Your task to perform on an android device: Open Google Chrome and open the bookmarks view Image 0: 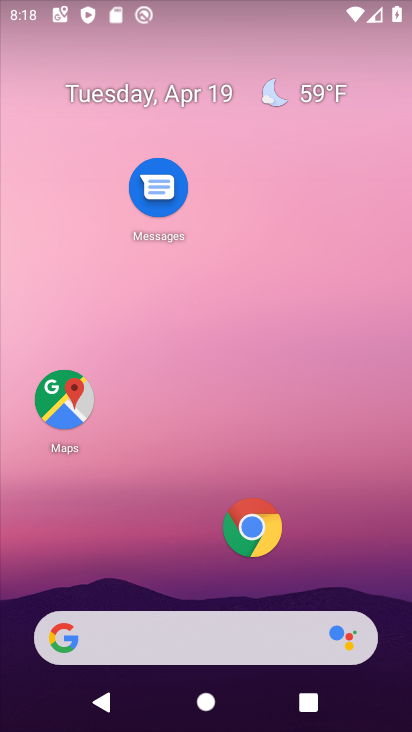
Step 0: click (253, 528)
Your task to perform on an android device: Open Google Chrome and open the bookmarks view Image 1: 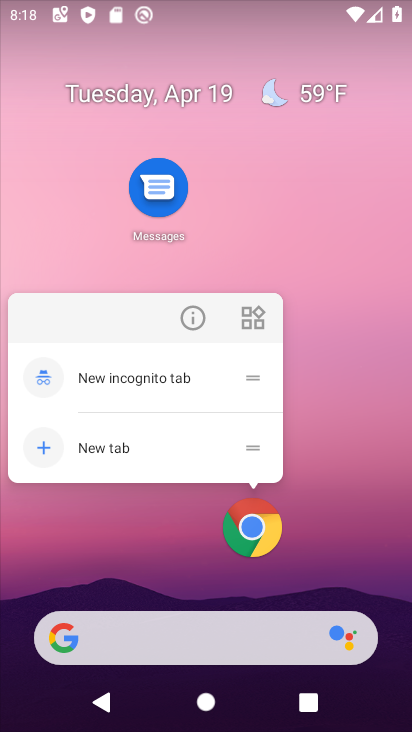
Step 1: click (253, 528)
Your task to perform on an android device: Open Google Chrome and open the bookmarks view Image 2: 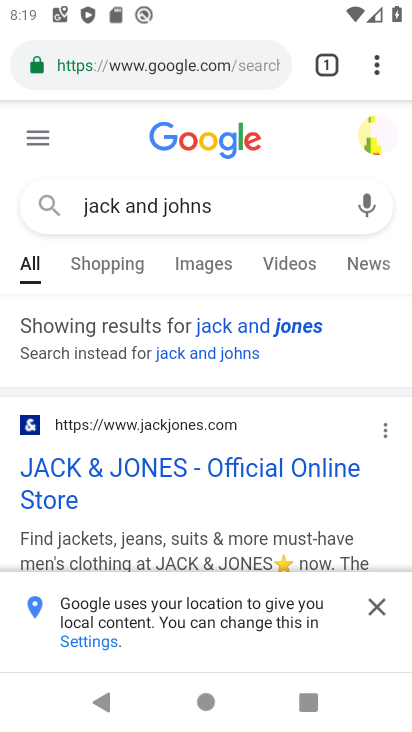
Step 2: click (382, 62)
Your task to perform on an android device: Open Google Chrome and open the bookmarks view Image 3: 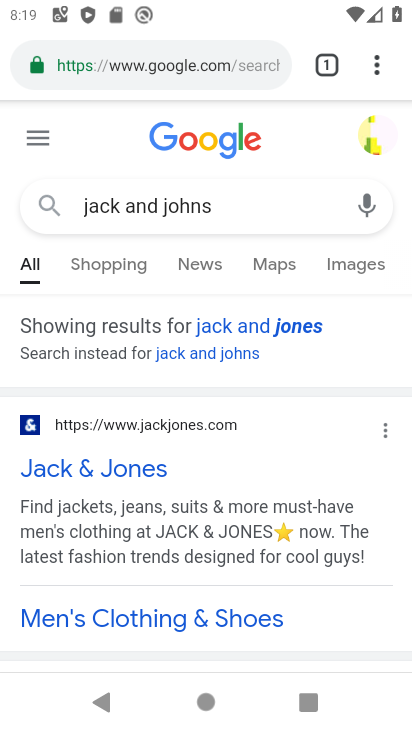
Step 3: drag from (375, 63) to (179, 243)
Your task to perform on an android device: Open Google Chrome and open the bookmarks view Image 4: 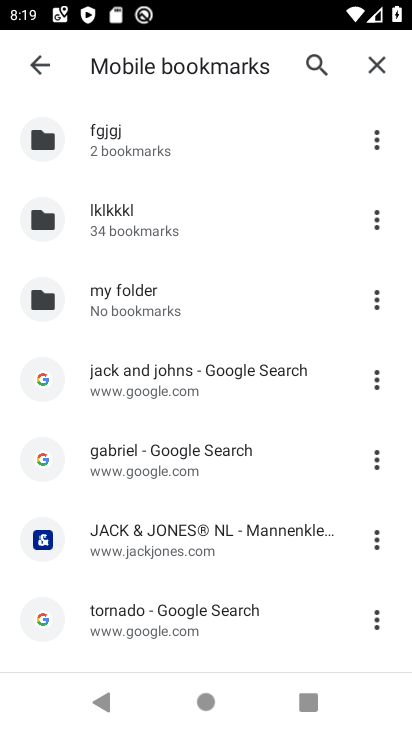
Step 4: click (152, 381)
Your task to perform on an android device: Open Google Chrome and open the bookmarks view Image 5: 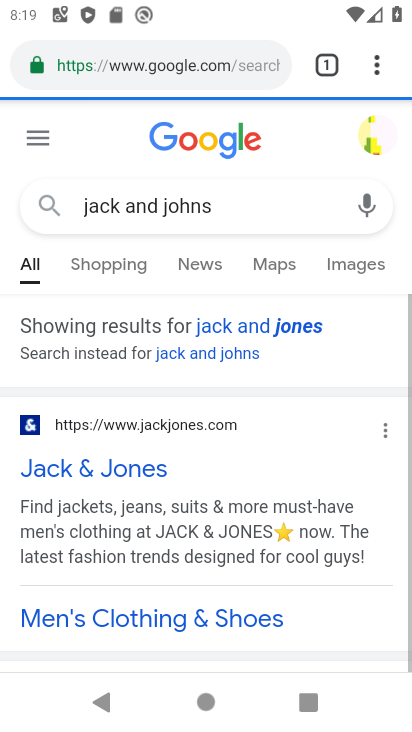
Step 5: task complete